Your task to perform on an android device: Open eBay Image 0: 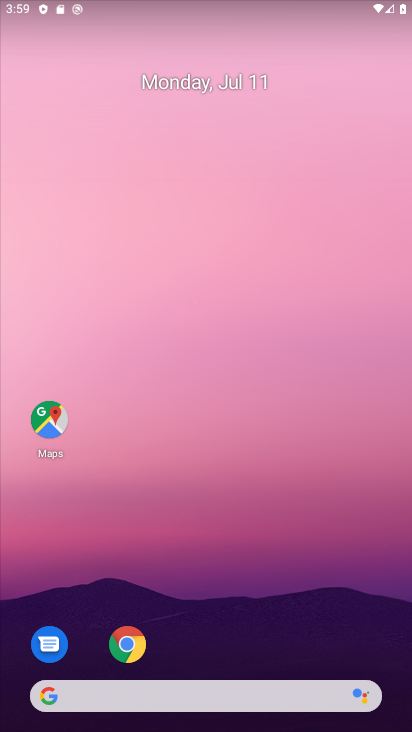
Step 0: click (219, 151)
Your task to perform on an android device: Open eBay Image 1: 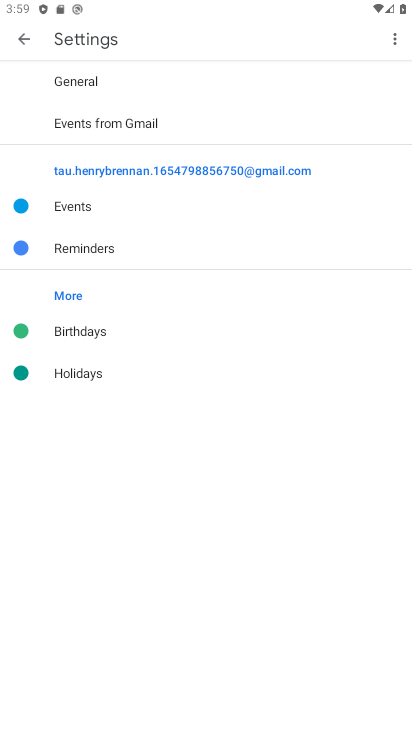
Step 1: press home button
Your task to perform on an android device: Open eBay Image 2: 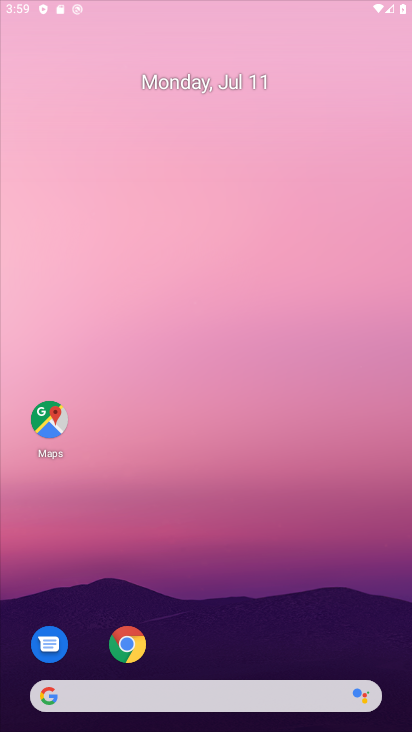
Step 2: click (138, 648)
Your task to perform on an android device: Open eBay Image 3: 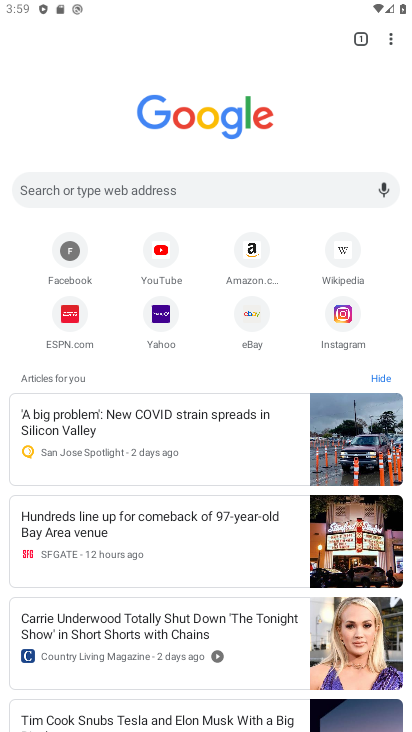
Step 3: click (172, 196)
Your task to perform on an android device: Open eBay Image 4: 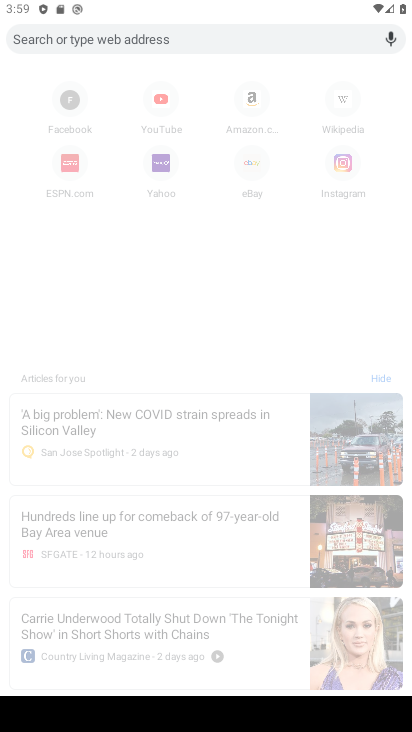
Step 4: type "eBay"
Your task to perform on an android device: Open eBay Image 5: 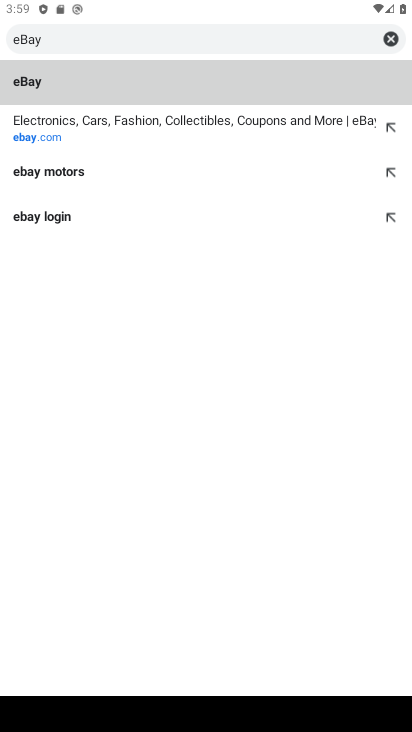
Step 5: click (128, 78)
Your task to perform on an android device: Open eBay Image 6: 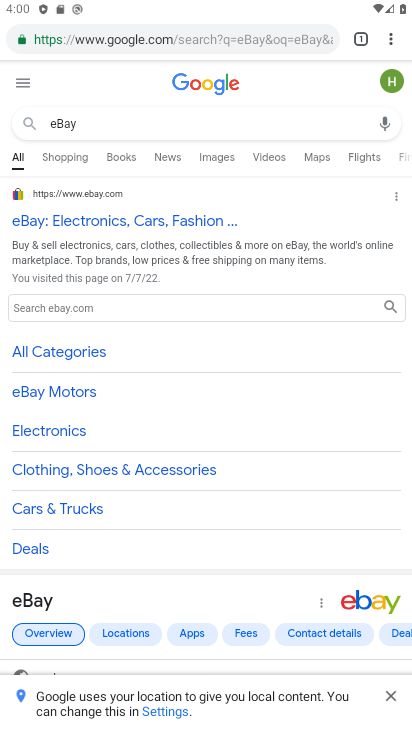
Step 6: click (90, 220)
Your task to perform on an android device: Open eBay Image 7: 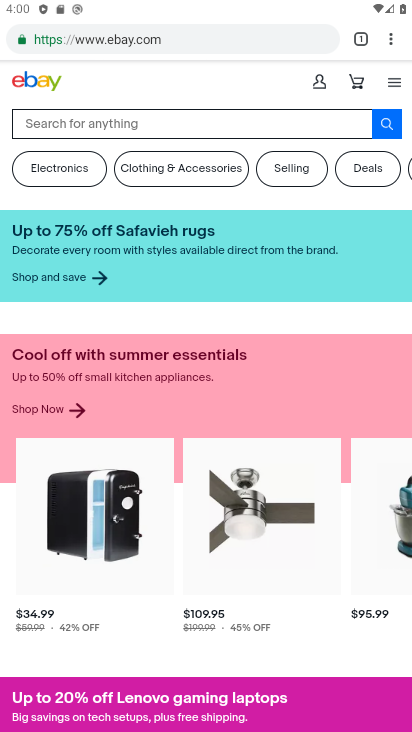
Step 7: task complete